Your task to perform on an android device: Go to eBay Image 0: 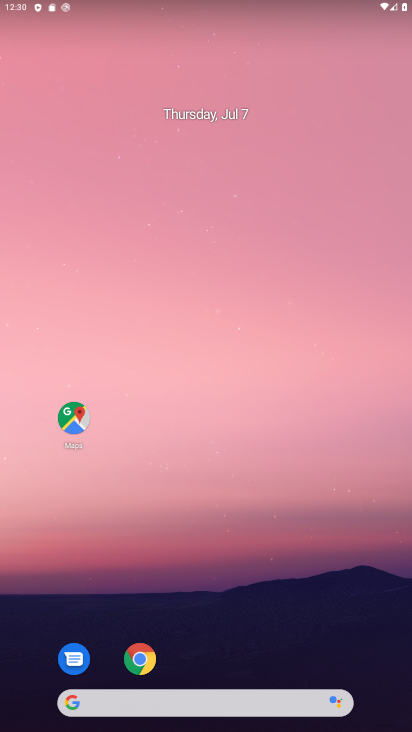
Step 0: click (159, 705)
Your task to perform on an android device: Go to eBay Image 1: 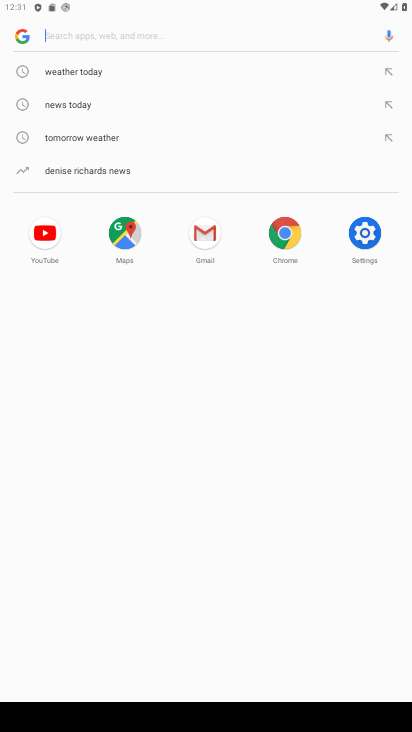
Step 1: type "ebay"
Your task to perform on an android device: Go to eBay Image 2: 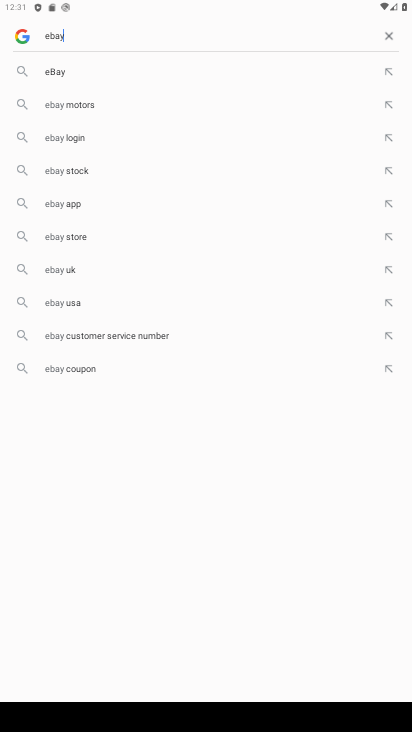
Step 2: click (65, 66)
Your task to perform on an android device: Go to eBay Image 3: 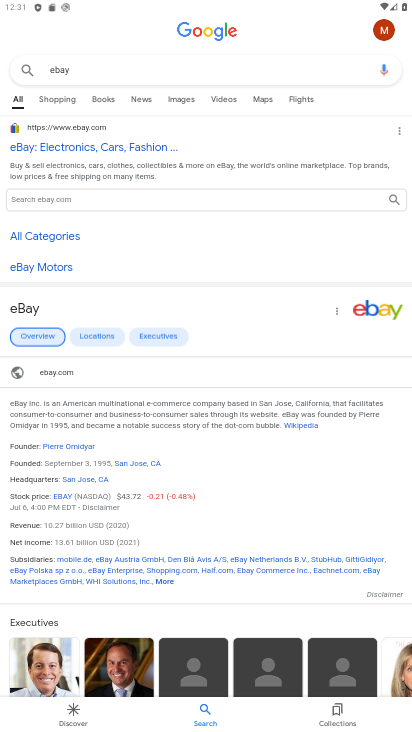
Step 3: click (65, 146)
Your task to perform on an android device: Go to eBay Image 4: 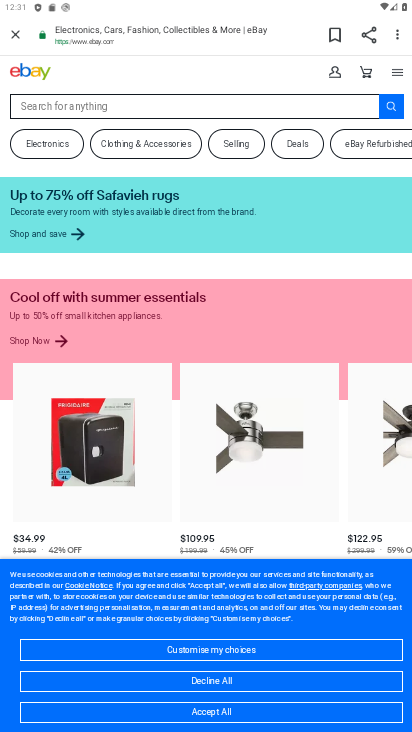
Step 4: task complete